Your task to perform on an android device: open the mobile data screen to see how much data has been used Image 0: 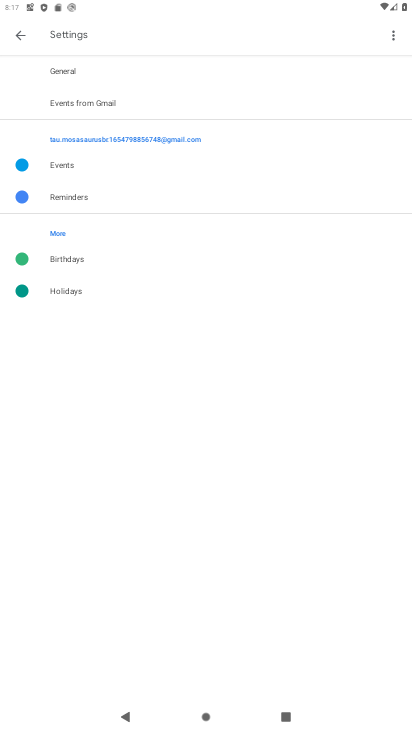
Step 0: press home button
Your task to perform on an android device: open the mobile data screen to see how much data has been used Image 1: 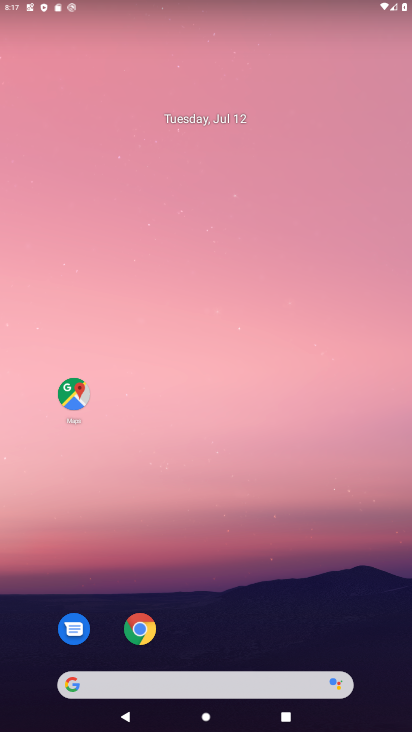
Step 1: drag from (265, 603) to (252, 142)
Your task to perform on an android device: open the mobile data screen to see how much data has been used Image 2: 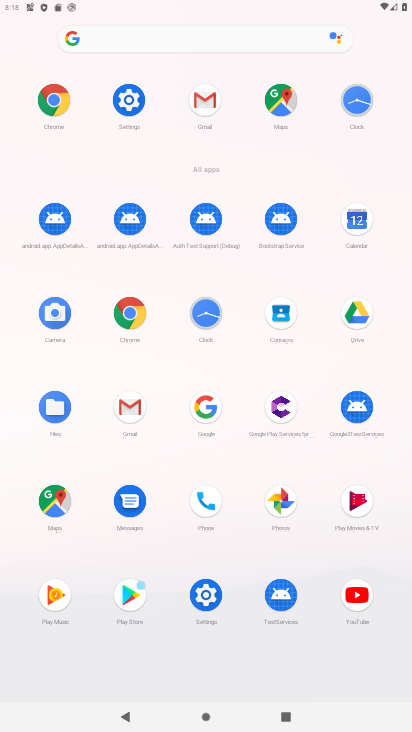
Step 2: click (127, 96)
Your task to perform on an android device: open the mobile data screen to see how much data has been used Image 3: 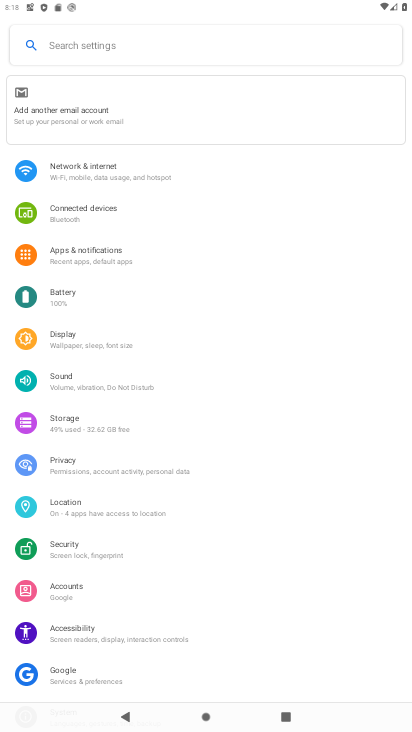
Step 3: click (111, 172)
Your task to perform on an android device: open the mobile data screen to see how much data has been used Image 4: 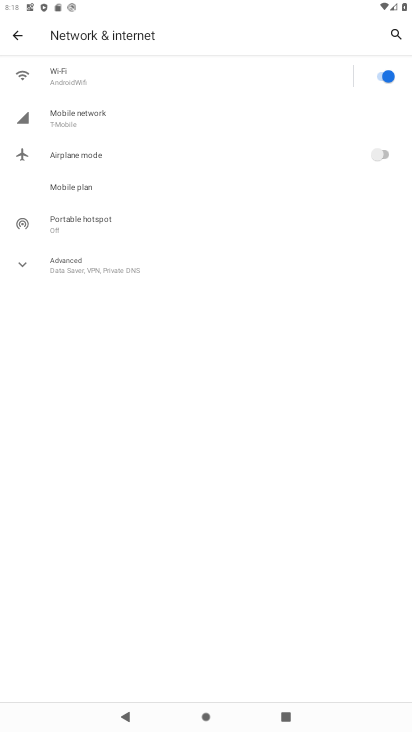
Step 4: click (90, 102)
Your task to perform on an android device: open the mobile data screen to see how much data has been used Image 5: 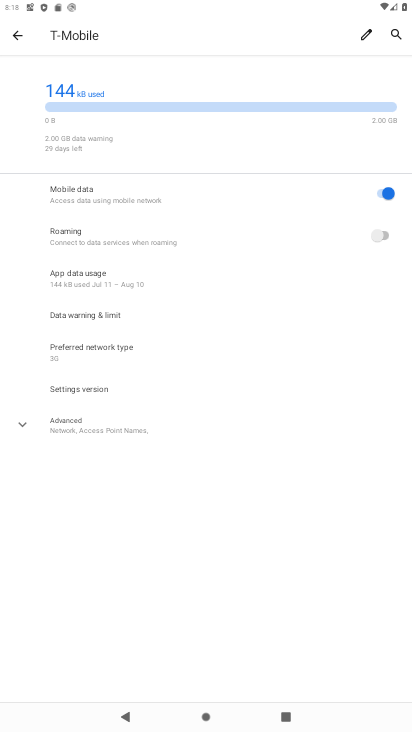
Step 5: task complete